Your task to perform on an android device: open app "Microsoft Outlook" Image 0: 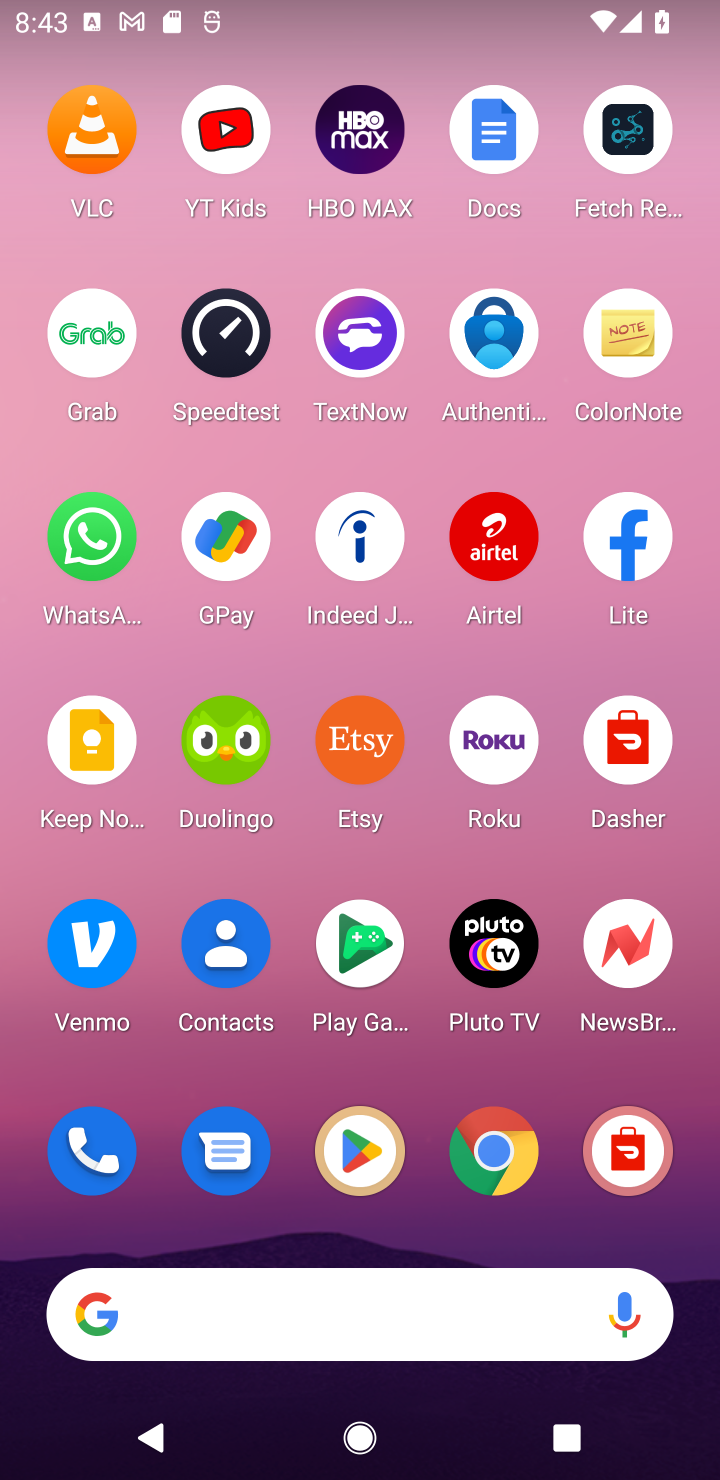
Step 0: press home button
Your task to perform on an android device: open app "Microsoft Outlook" Image 1: 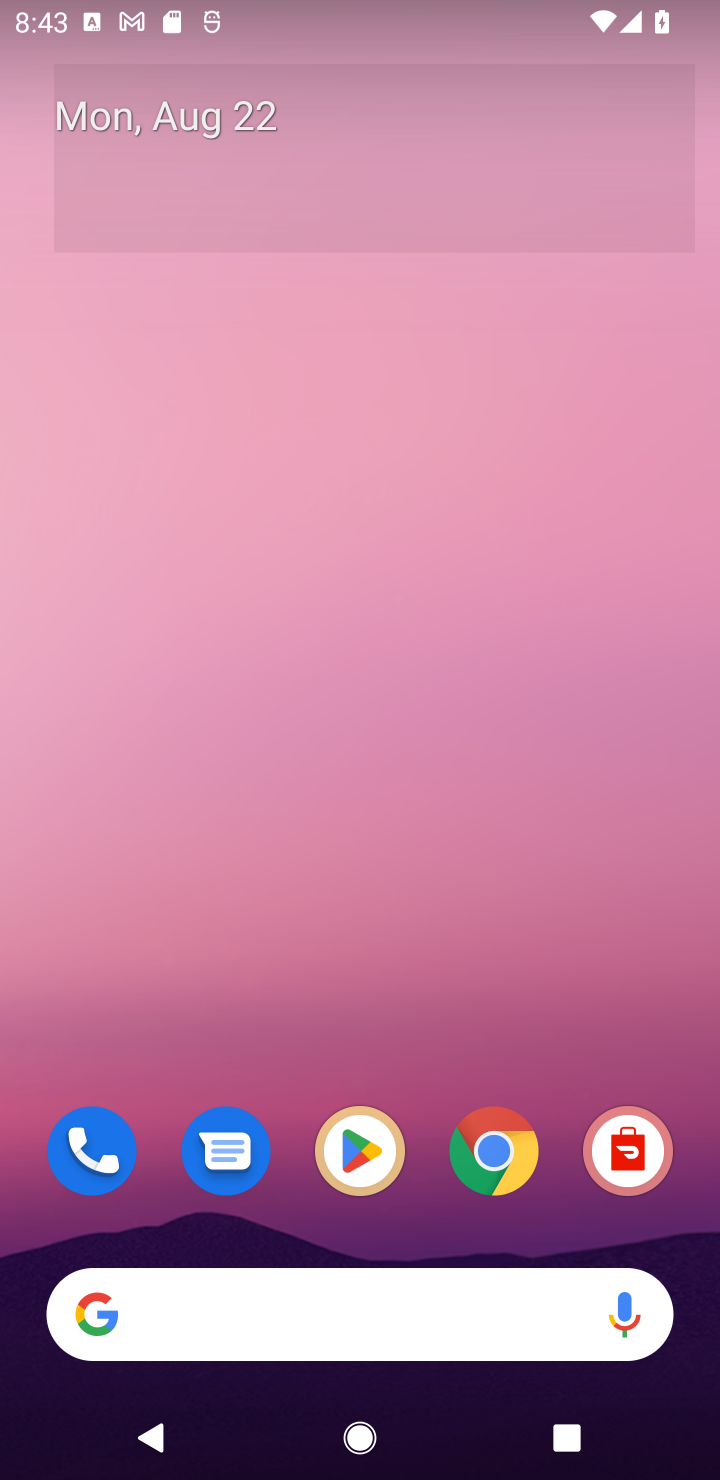
Step 1: click (373, 1151)
Your task to perform on an android device: open app "Microsoft Outlook" Image 2: 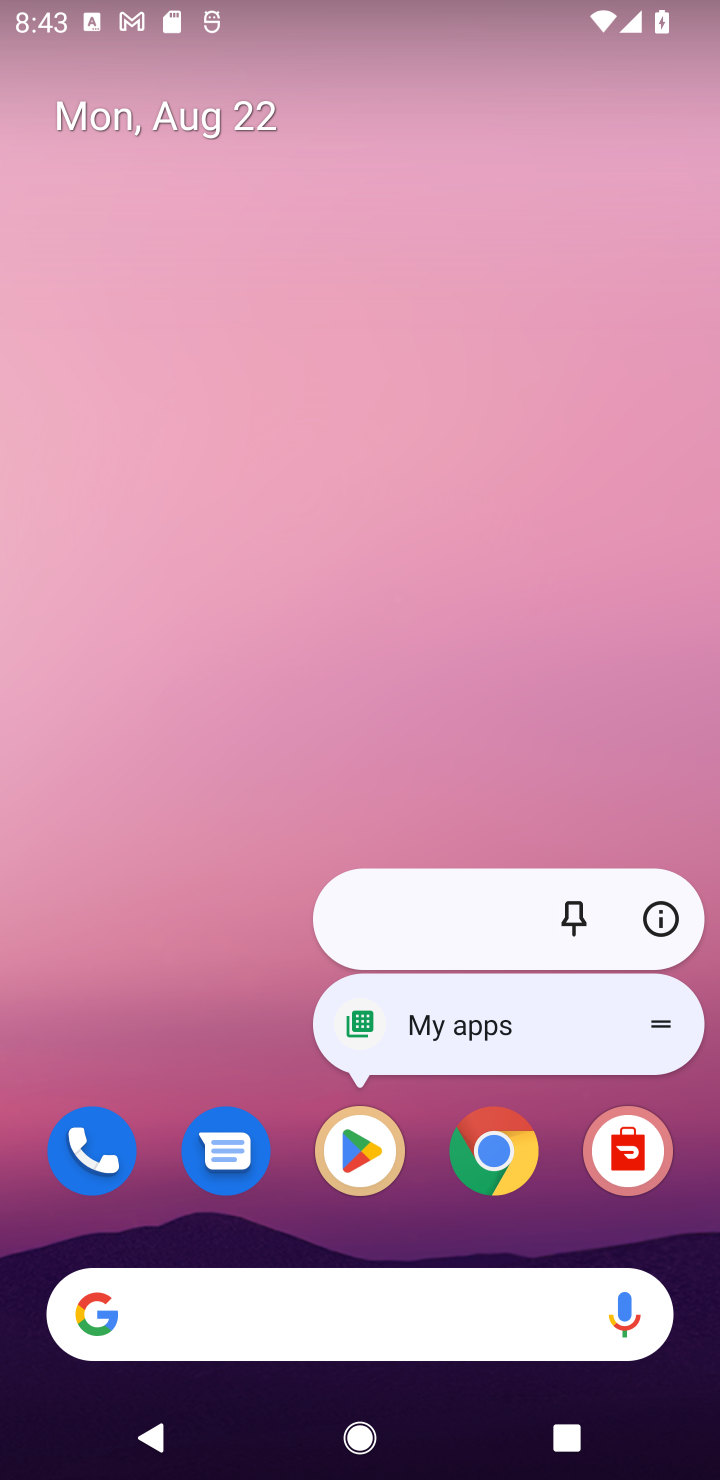
Step 2: click (362, 1149)
Your task to perform on an android device: open app "Microsoft Outlook" Image 3: 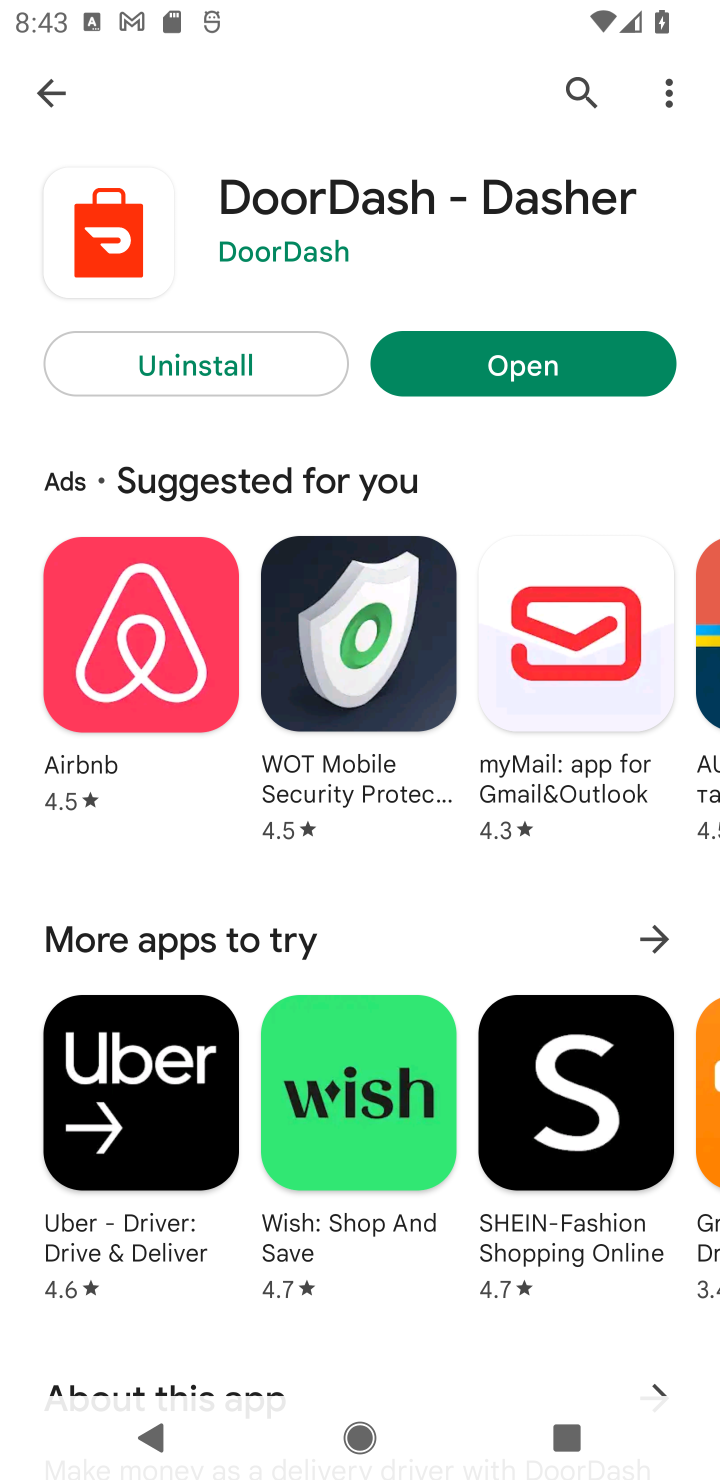
Step 3: click (582, 89)
Your task to perform on an android device: open app "Microsoft Outlook" Image 4: 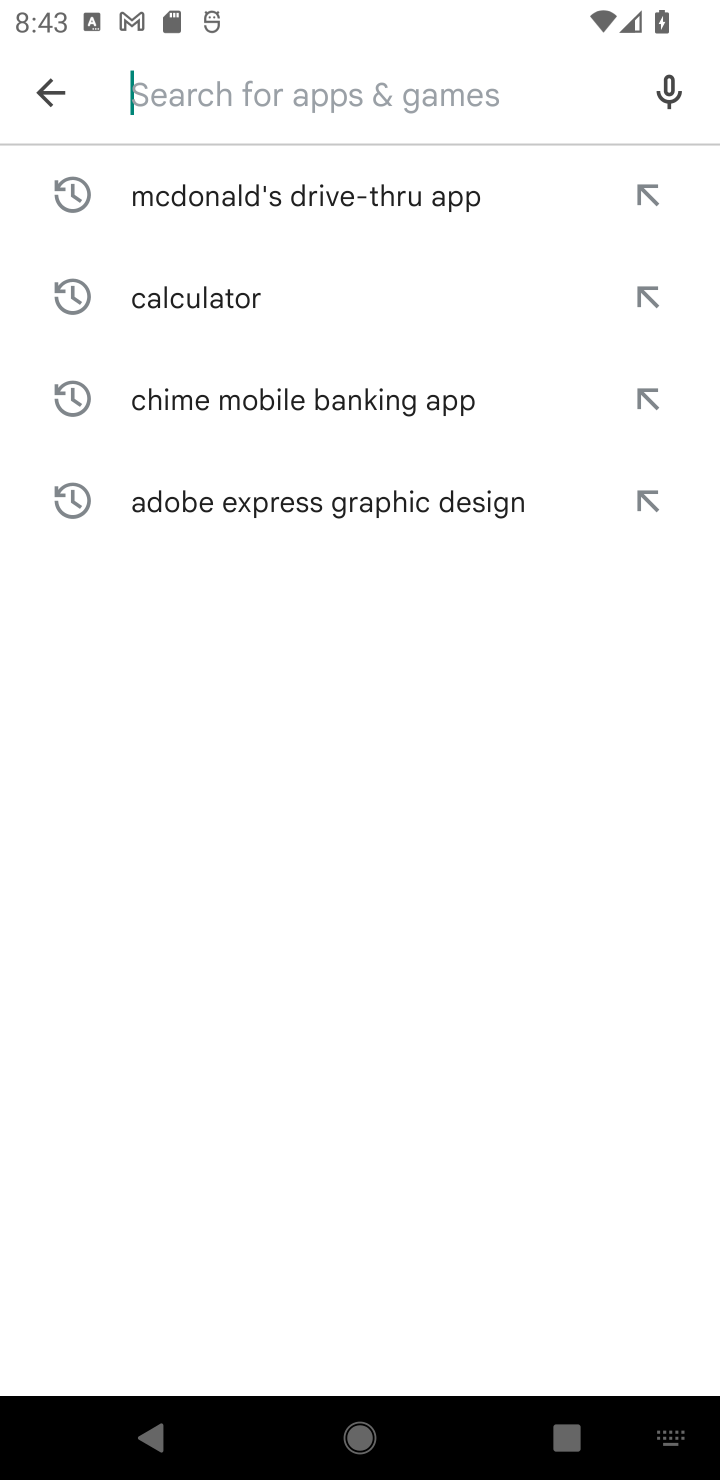
Step 4: type "Microsoft Outlook"
Your task to perform on an android device: open app "Microsoft Outlook" Image 5: 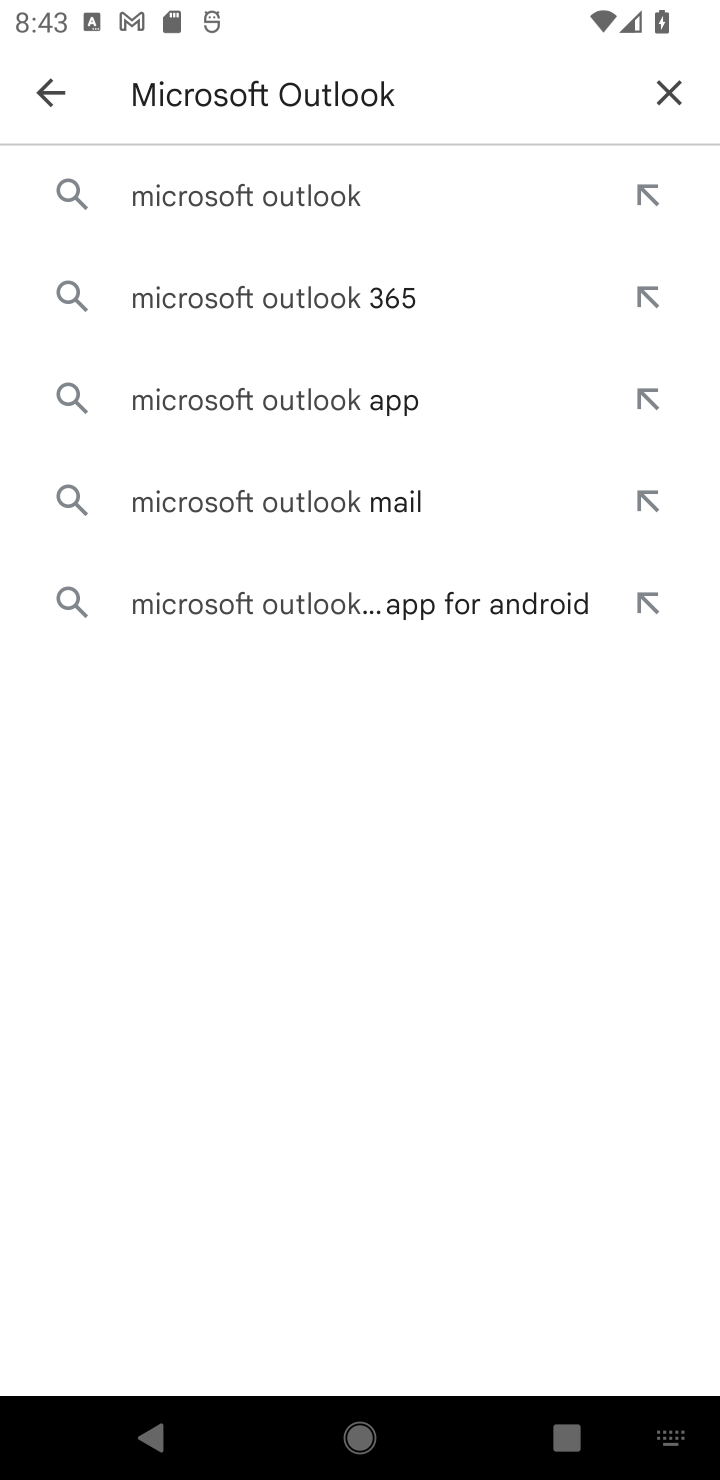
Step 5: click (282, 193)
Your task to perform on an android device: open app "Microsoft Outlook" Image 6: 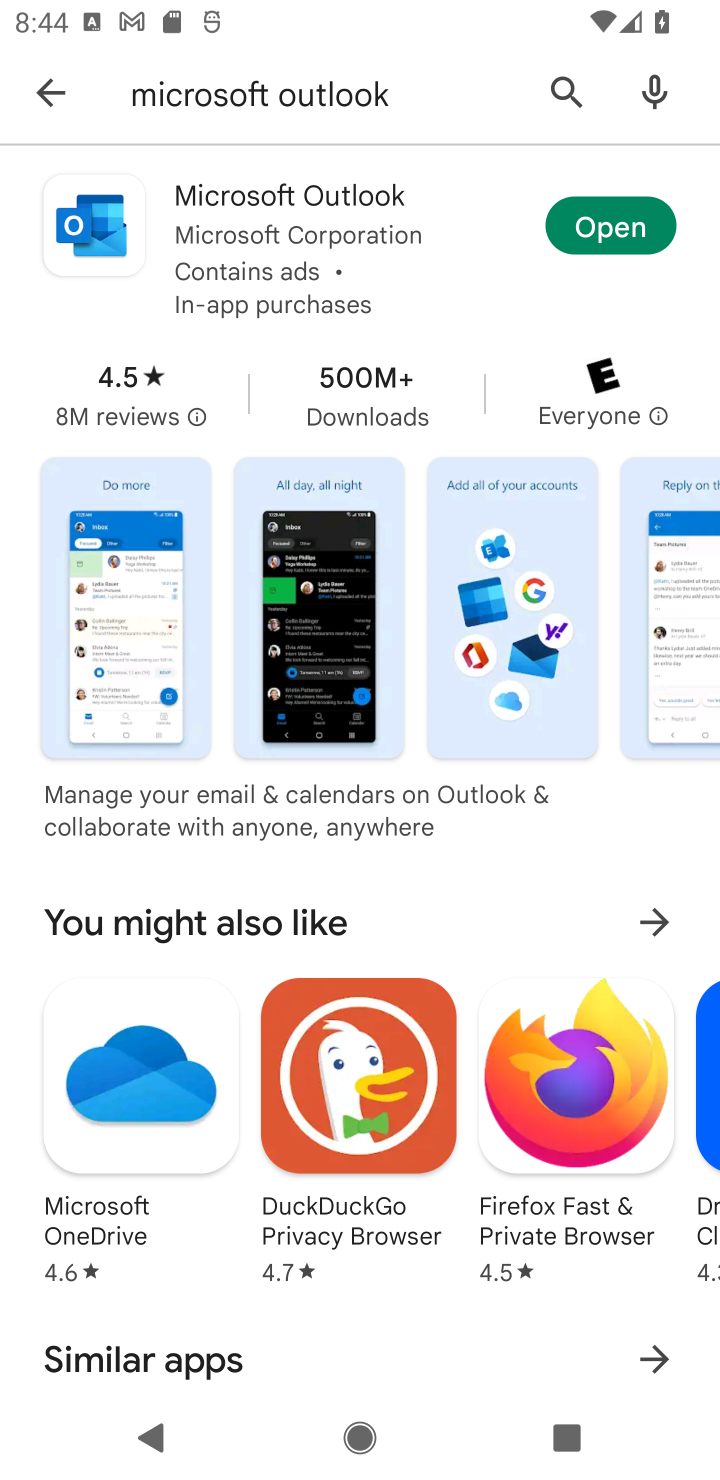
Step 6: click (616, 216)
Your task to perform on an android device: open app "Microsoft Outlook" Image 7: 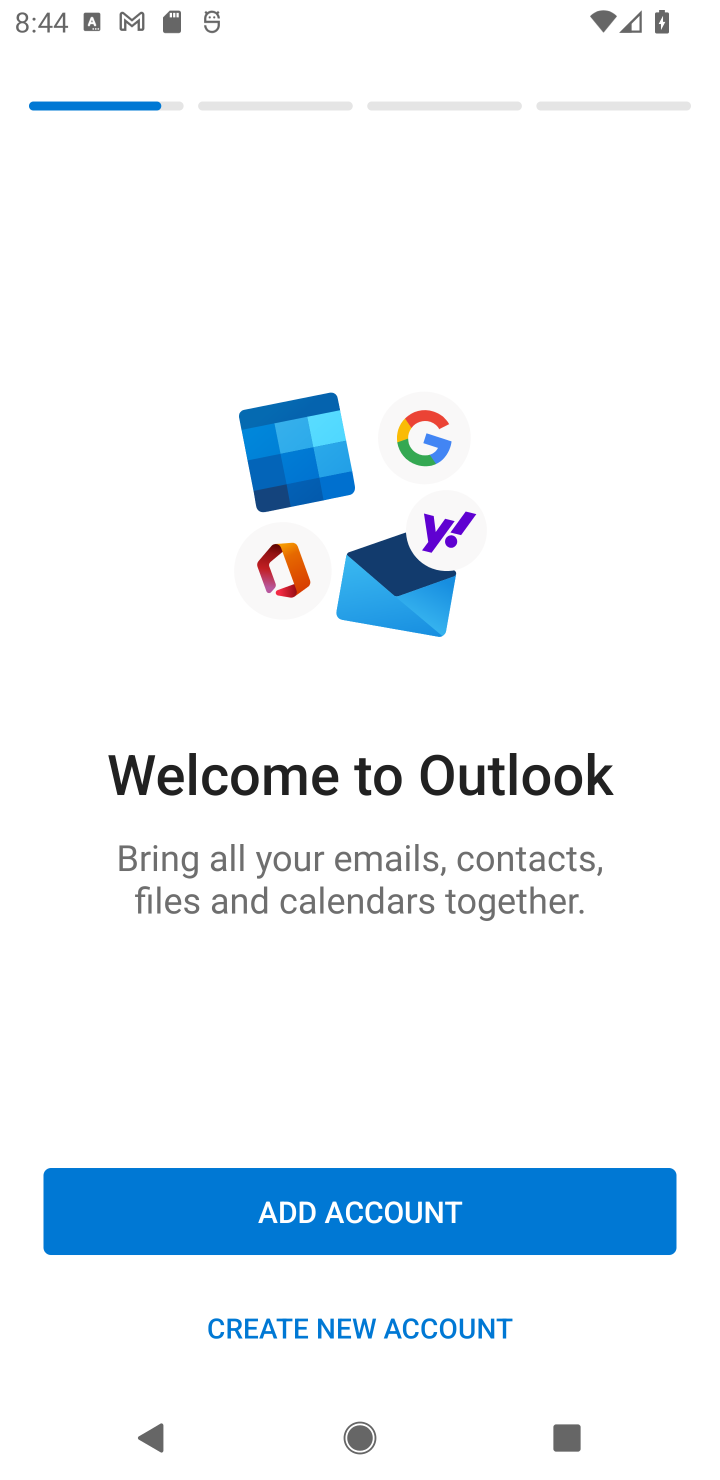
Step 7: task complete